Your task to perform on an android device: Go to Reddit.com Image 0: 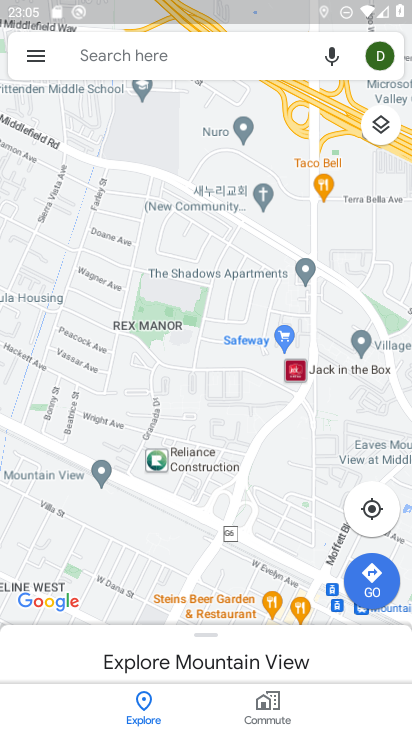
Step 0: press home button
Your task to perform on an android device: Go to Reddit.com Image 1: 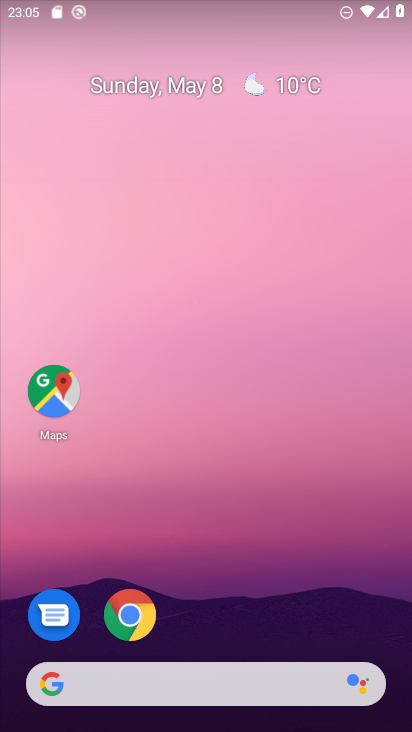
Step 1: drag from (272, 450) to (315, 52)
Your task to perform on an android device: Go to Reddit.com Image 2: 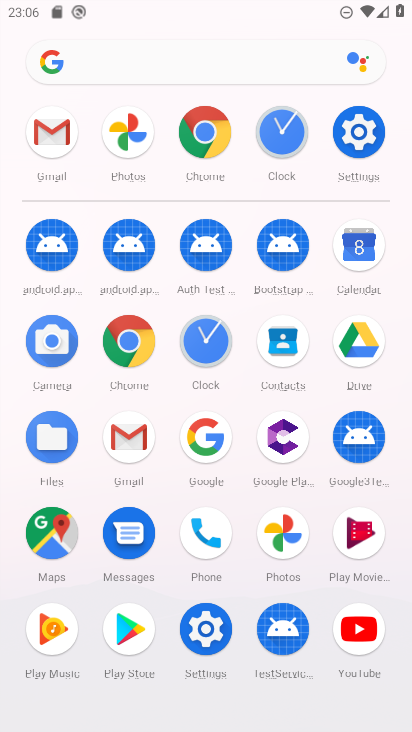
Step 2: click (128, 343)
Your task to perform on an android device: Go to Reddit.com Image 3: 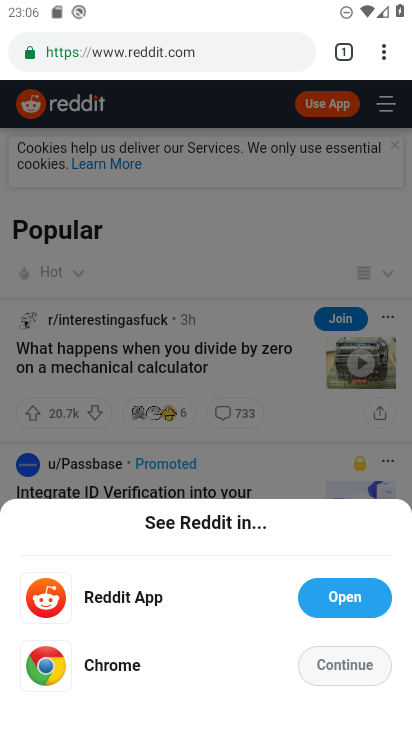
Step 3: task complete